Your task to perform on an android device: turn on sleep mode Image 0: 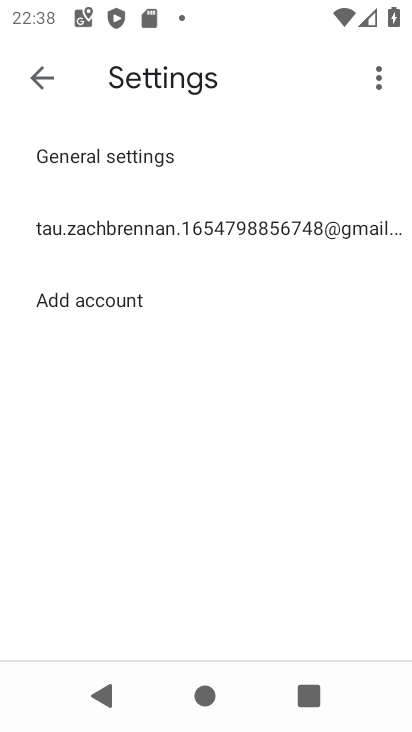
Step 0: press home button
Your task to perform on an android device: turn on sleep mode Image 1: 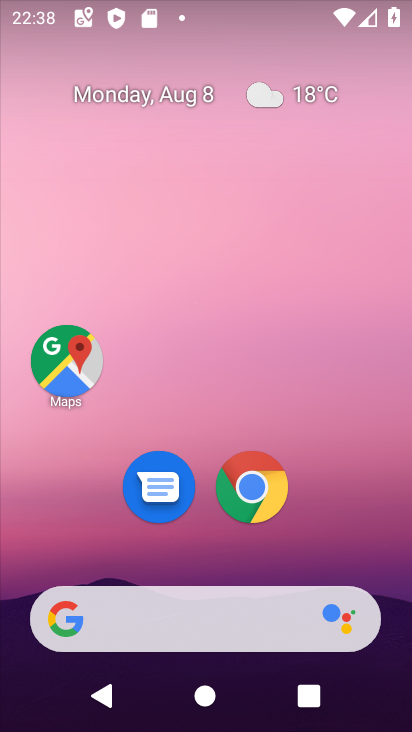
Step 1: drag from (205, 523) to (216, 56)
Your task to perform on an android device: turn on sleep mode Image 2: 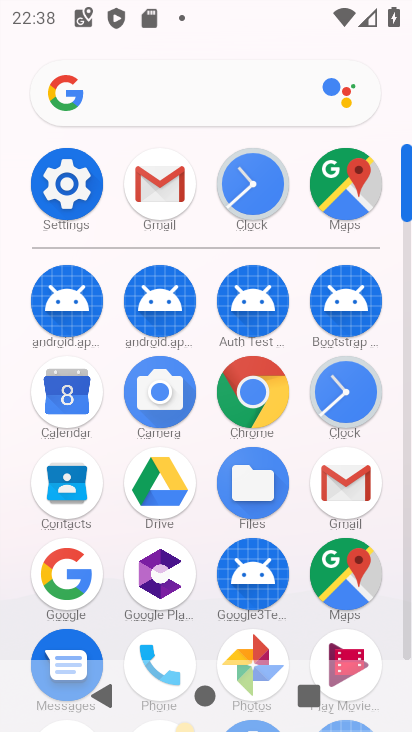
Step 2: click (65, 190)
Your task to perform on an android device: turn on sleep mode Image 3: 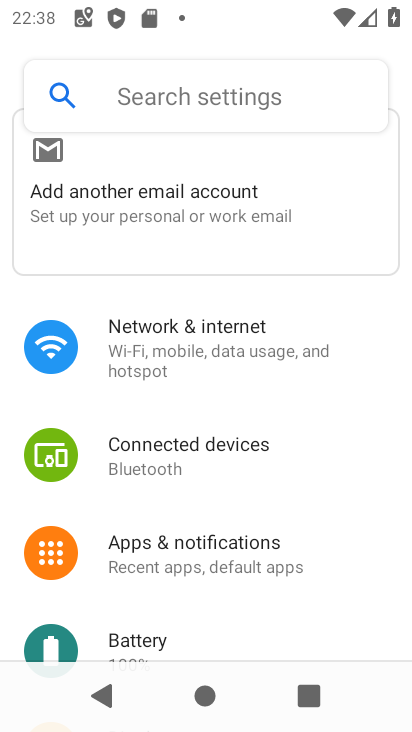
Step 3: drag from (172, 524) to (169, 282)
Your task to perform on an android device: turn on sleep mode Image 4: 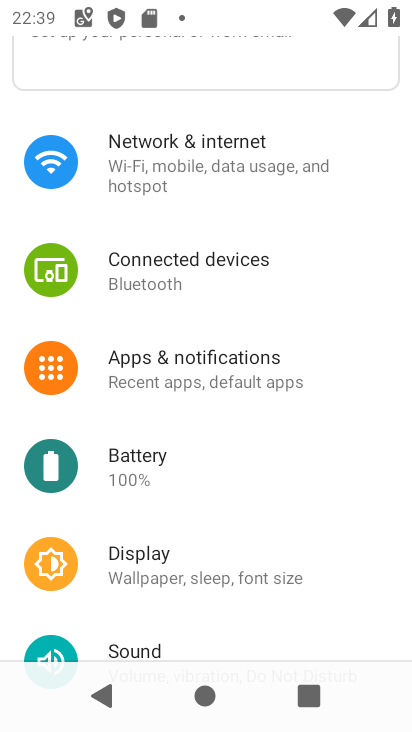
Step 4: drag from (181, 616) to (162, 389)
Your task to perform on an android device: turn on sleep mode Image 5: 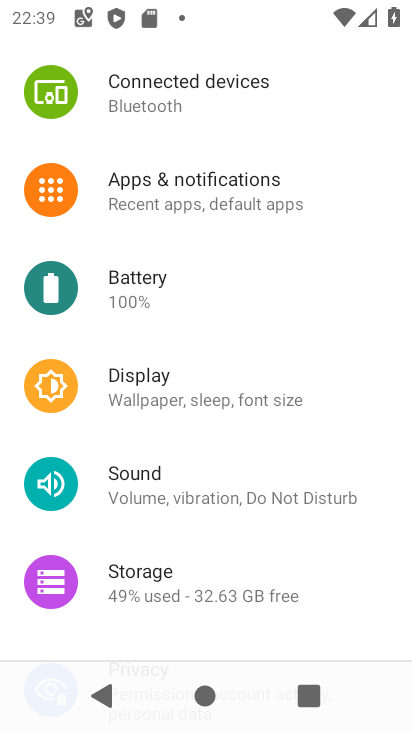
Step 5: click (144, 387)
Your task to perform on an android device: turn on sleep mode Image 6: 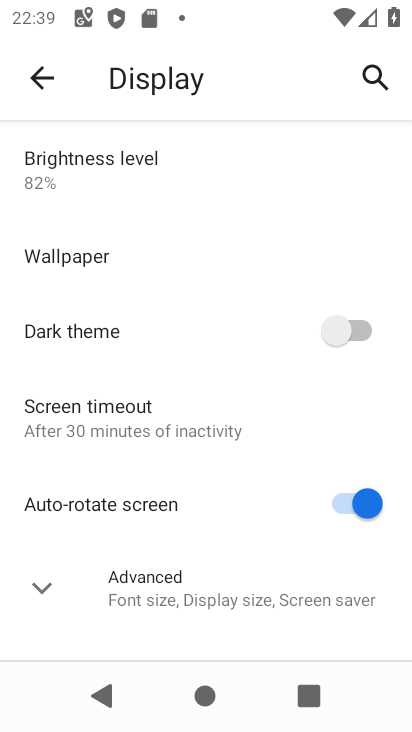
Step 6: task complete